Your task to perform on an android device: Open Reddit.com Image 0: 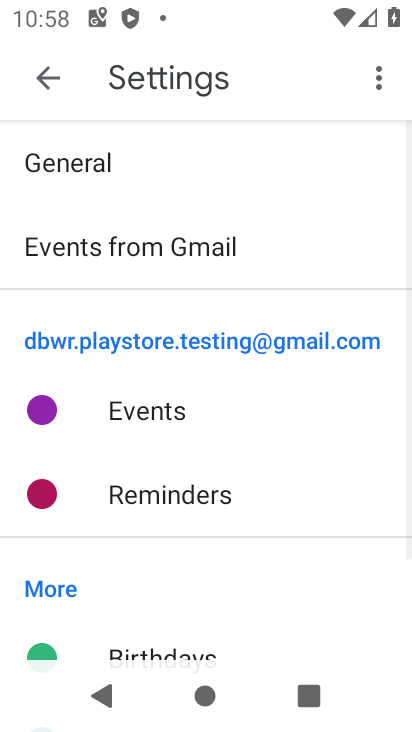
Step 0: drag from (379, 518) to (397, 153)
Your task to perform on an android device: Open Reddit.com Image 1: 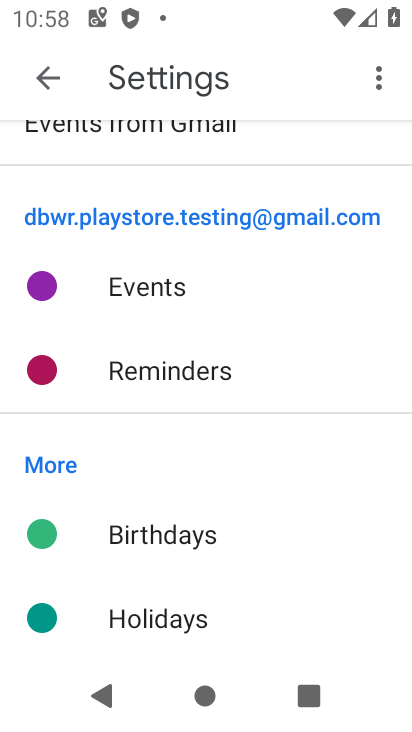
Step 1: press home button
Your task to perform on an android device: Open Reddit.com Image 2: 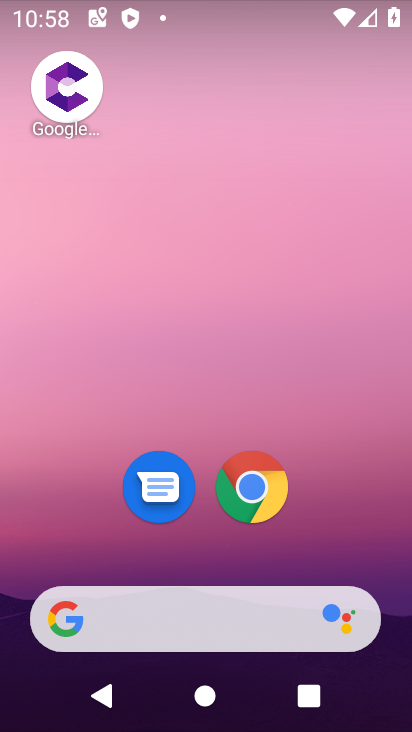
Step 2: click (257, 504)
Your task to perform on an android device: Open Reddit.com Image 3: 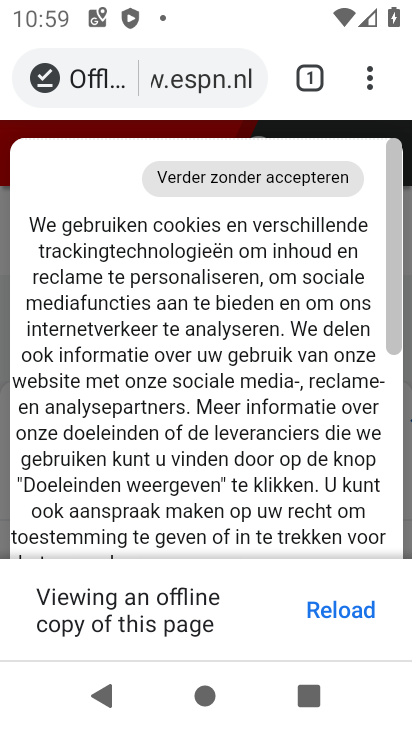
Step 3: click (202, 79)
Your task to perform on an android device: Open Reddit.com Image 4: 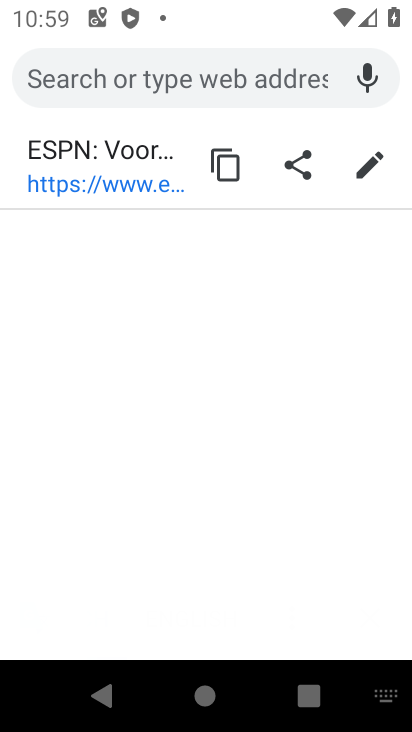
Step 4: type "reddit.com"
Your task to perform on an android device: Open Reddit.com Image 5: 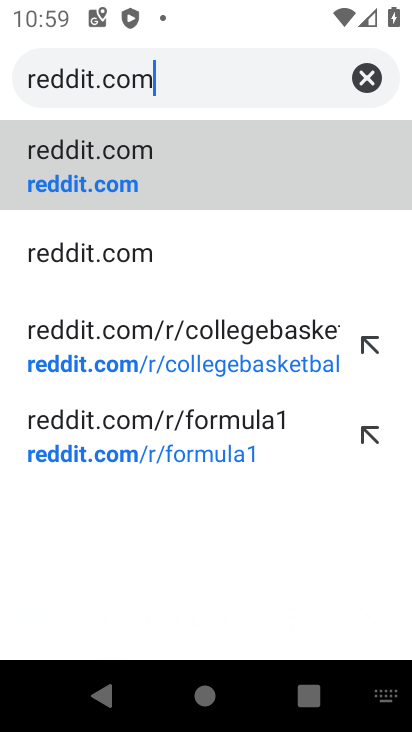
Step 5: click (242, 166)
Your task to perform on an android device: Open Reddit.com Image 6: 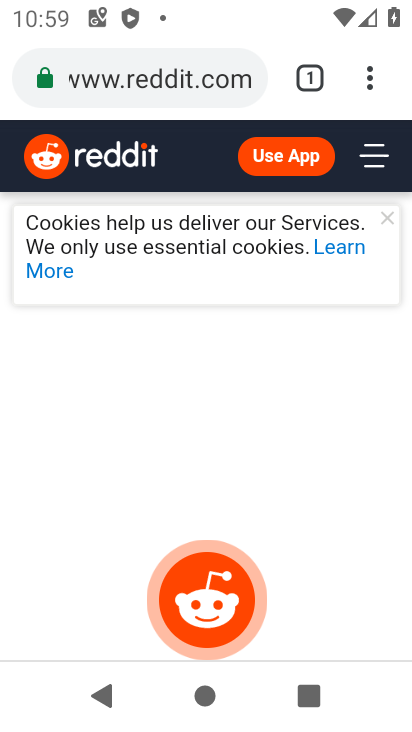
Step 6: task complete